Your task to perform on an android device: Go to wifi settings Image 0: 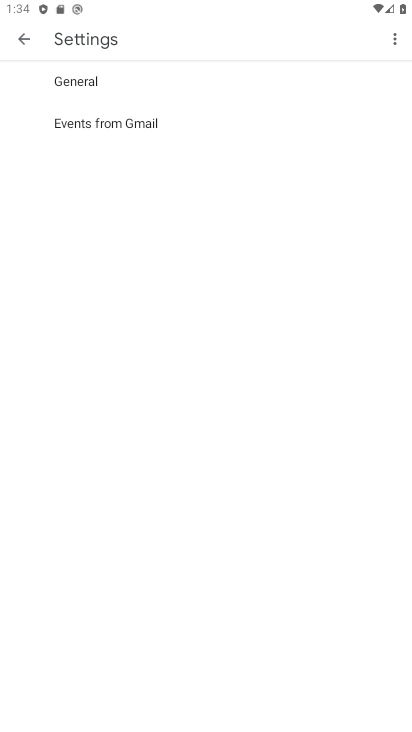
Step 0: press back button
Your task to perform on an android device: Go to wifi settings Image 1: 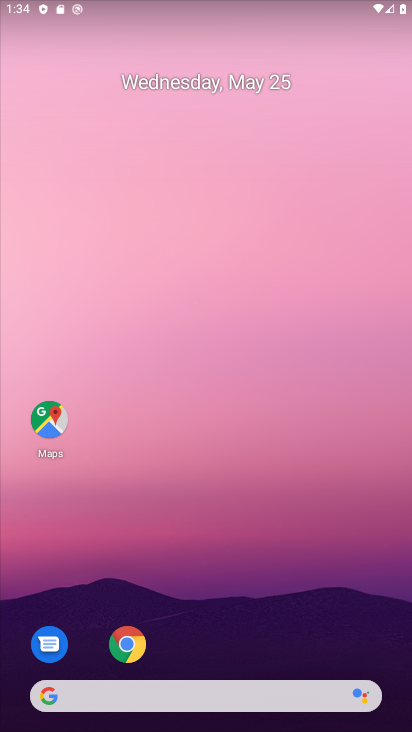
Step 1: drag from (313, 608) to (333, 175)
Your task to perform on an android device: Go to wifi settings Image 2: 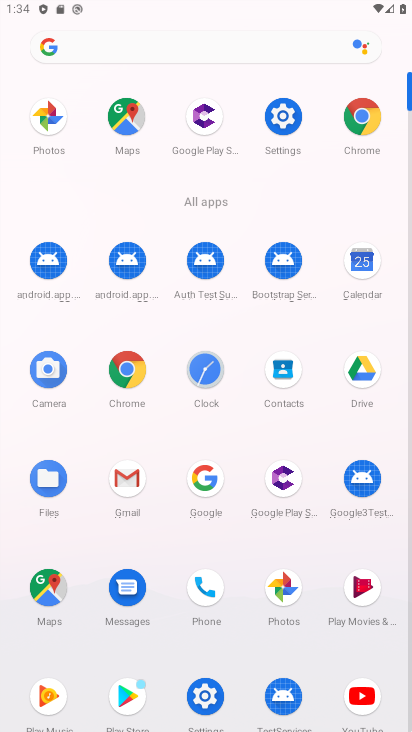
Step 2: click (282, 130)
Your task to perform on an android device: Go to wifi settings Image 3: 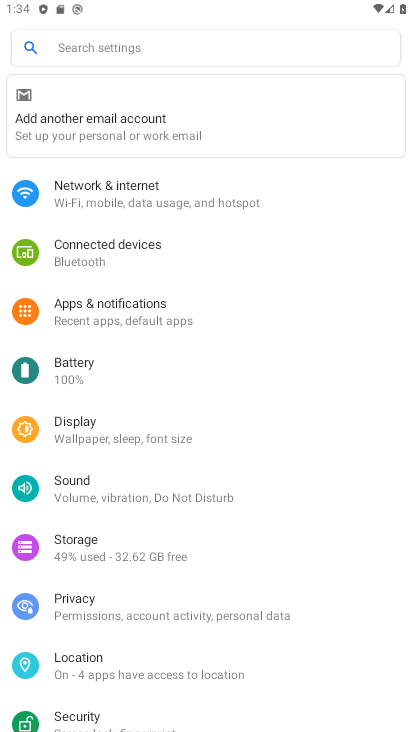
Step 3: drag from (324, 582) to (348, 368)
Your task to perform on an android device: Go to wifi settings Image 4: 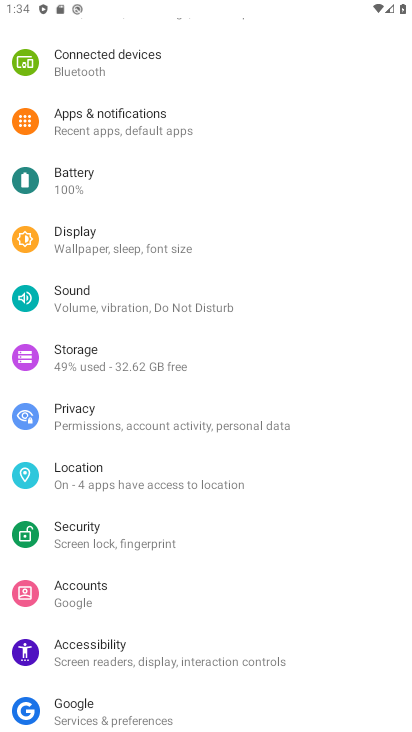
Step 4: drag from (326, 597) to (346, 385)
Your task to perform on an android device: Go to wifi settings Image 5: 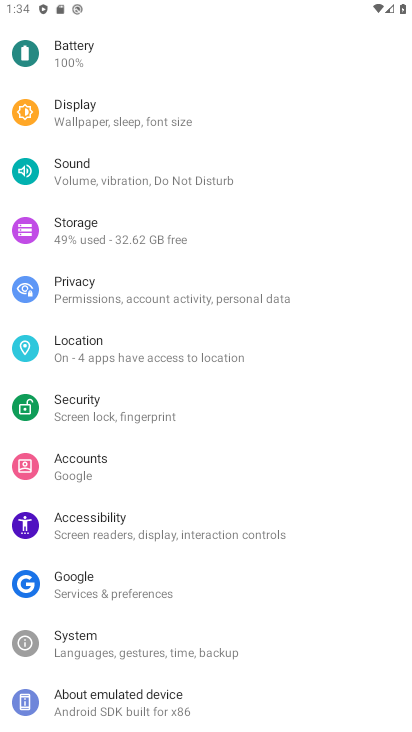
Step 5: drag from (338, 605) to (343, 403)
Your task to perform on an android device: Go to wifi settings Image 6: 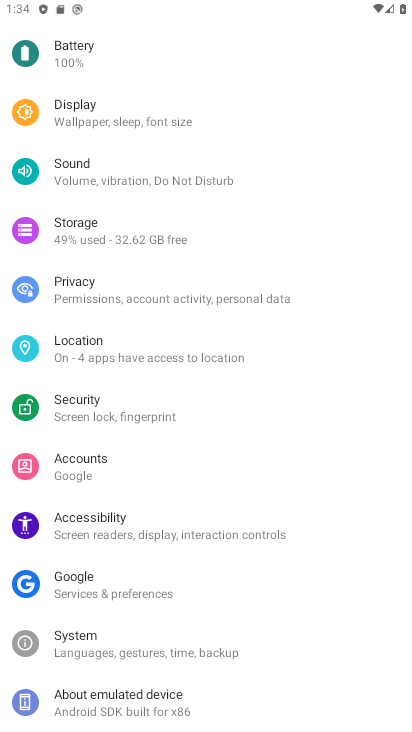
Step 6: drag from (331, 567) to (339, 428)
Your task to perform on an android device: Go to wifi settings Image 7: 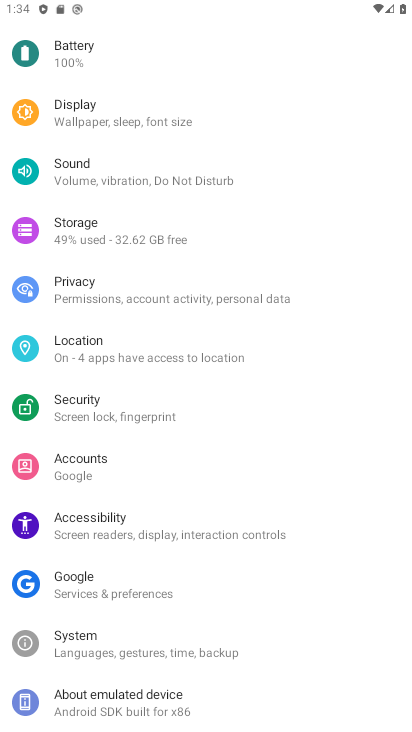
Step 7: drag from (342, 238) to (343, 352)
Your task to perform on an android device: Go to wifi settings Image 8: 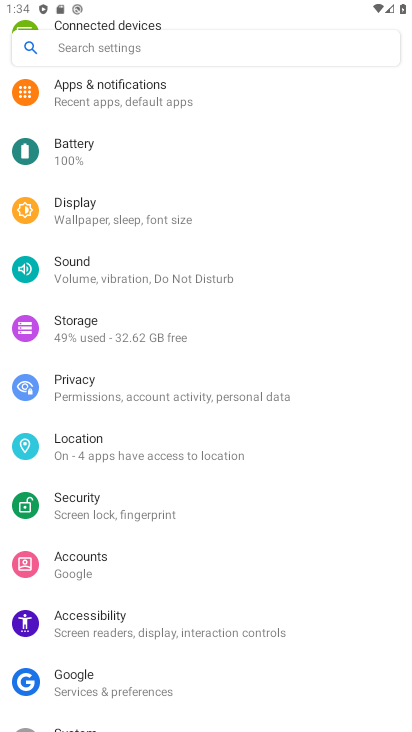
Step 8: drag from (343, 239) to (343, 365)
Your task to perform on an android device: Go to wifi settings Image 9: 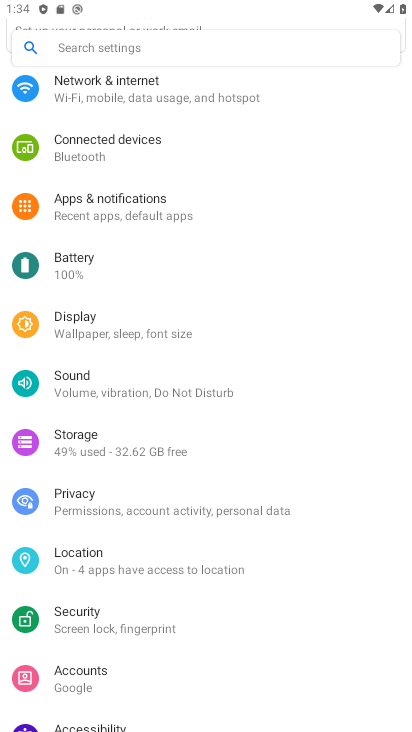
Step 9: drag from (343, 214) to (347, 432)
Your task to perform on an android device: Go to wifi settings Image 10: 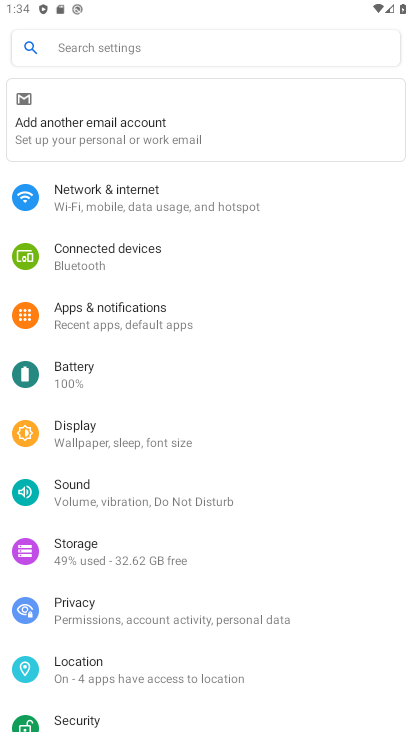
Step 10: drag from (319, 559) to (331, 397)
Your task to perform on an android device: Go to wifi settings Image 11: 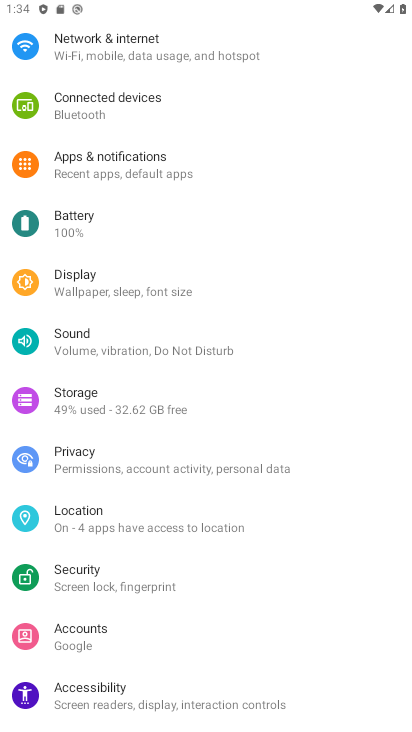
Step 11: drag from (333, 235) to (341, 436)
Your task to perform on an android device: Go to wifi settings Image 12: 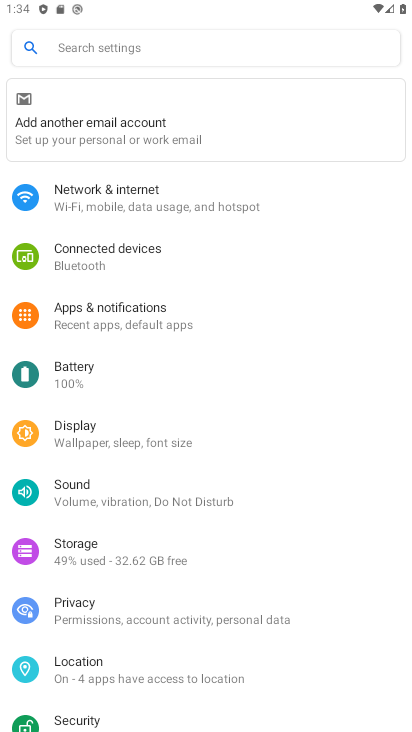
Step 12: click (223, 208)
Your task to perform on an android device: Go to wifi settings Image 13: 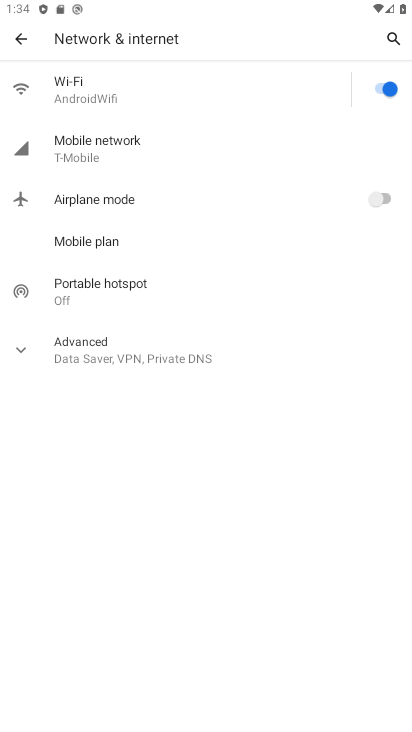
Step 13: click (94, 88)
Your task to perform on an android device: Go to wifi settings Image 14: 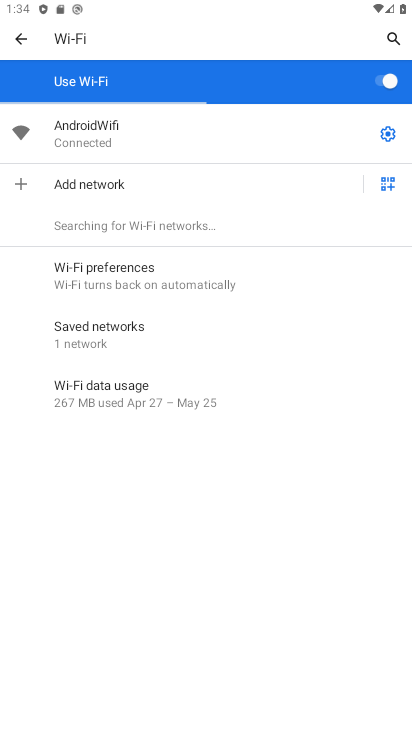
Step 14: task complete